Your task to perform on an android device: Open Youtube and go to "Your channel" Image 0: 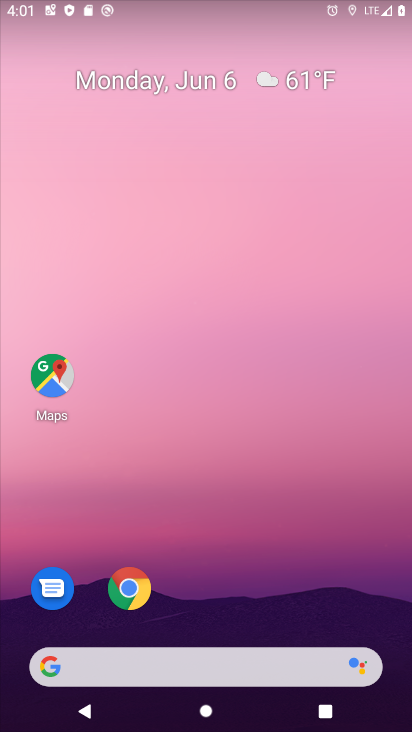
Step 0: drag from (270, 625) to (216, 176)
Your task to perform on an android device: Open Youtube and go to "Your channel" Image 1: 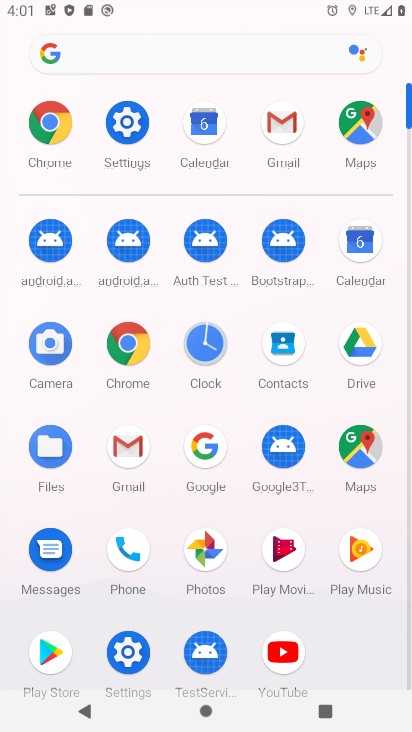
Step 1: click (285, 654)
Your task to perform on an android device: Open Youtube and go to "Your channel" Image 2: 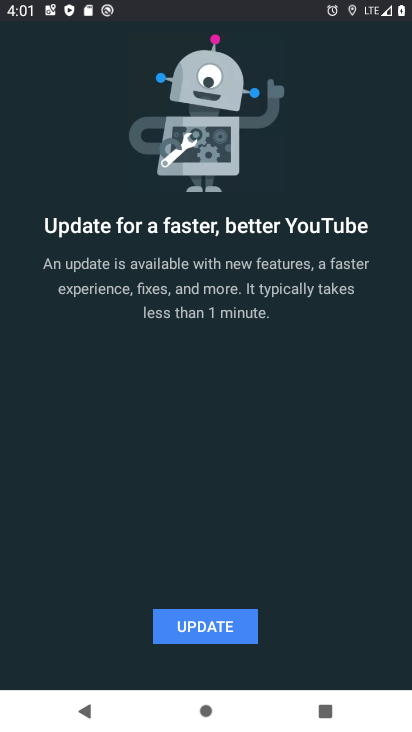
Step 2: click (248, 641)
Your task to perform on an android device: Open Youtube and go to "Your channel" Image 3: 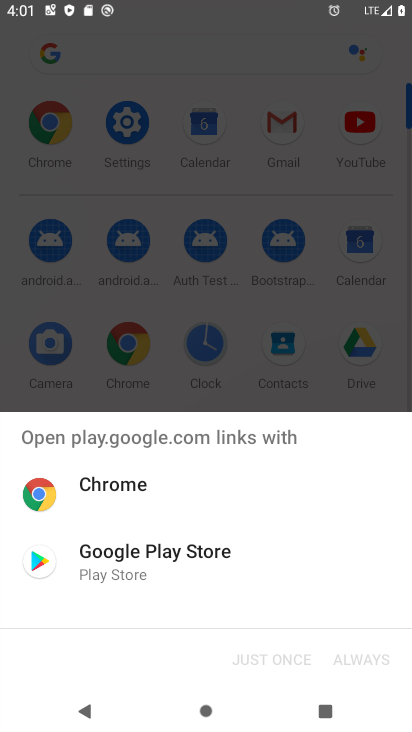
Step 3: click (221, 590)
Your task to perform on an android device: Open Youtube and go to "Your channel" Image 4: 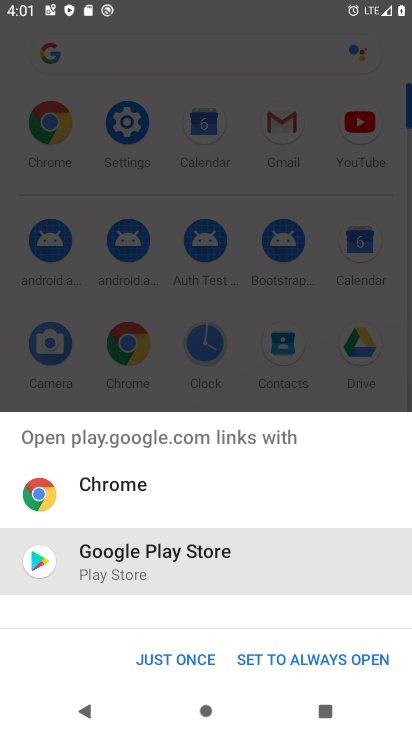
Step 4: click (197, 662)
Your task to perform on an android device: Open Youtube and go to "Your channel" Image 5: 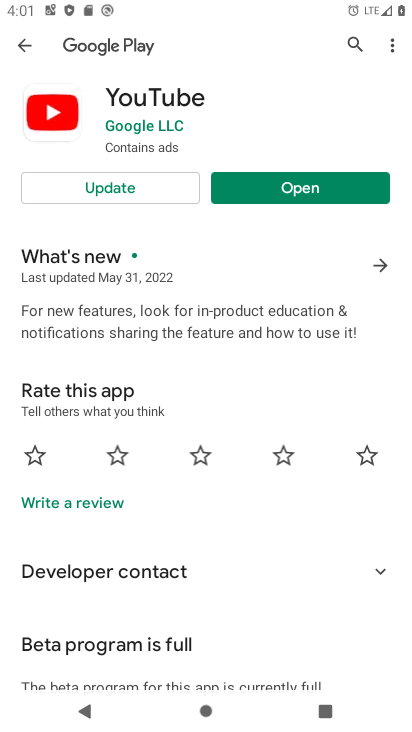
Step 5: click (106, 186)
Your task to perform on an android device: Open Youtube and go to "Your channel" Image 6: 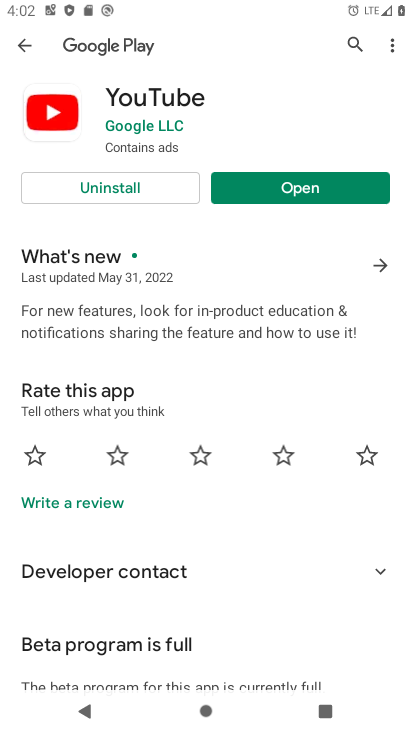
Step 6: click (282, 187)
Your task to perform on an android device: Open Youtube and go to "Your channel" Image 7: 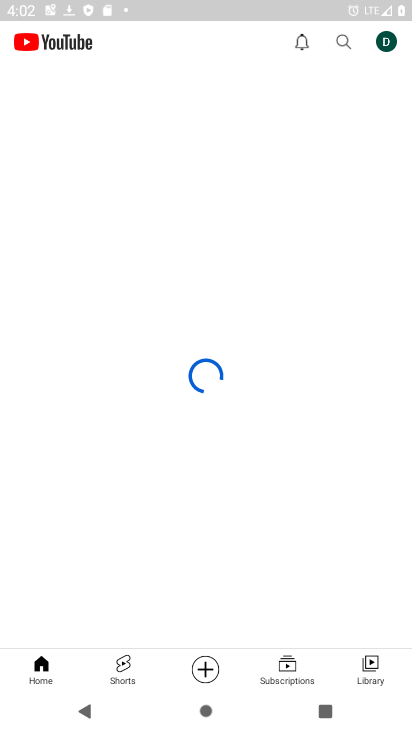
Step 7: click (387, 51)
Your task to perform on an android device: Open Youtube and go to "Your channel" Image 8: 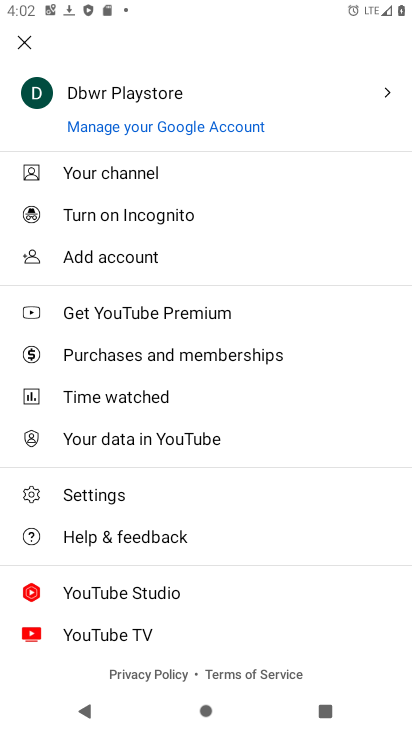
Step 8: click (177, 161)
Your task to perform on an android device: Open Youtube and go to "Your channel" Image 9: 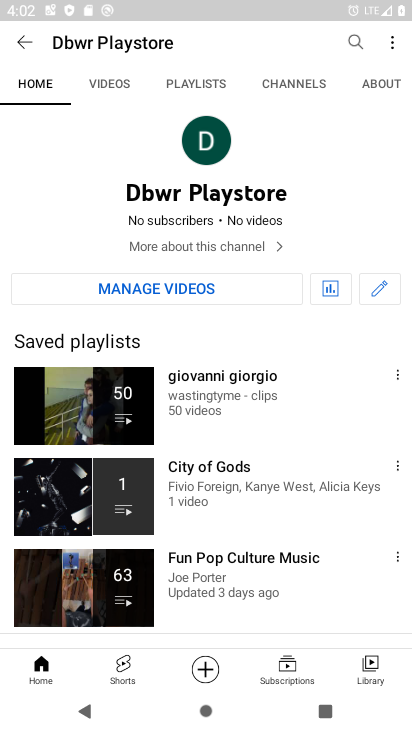
Step 9: task complete